Your task to perform on an android device: turn off notifications settings in the gmail app Image 0: 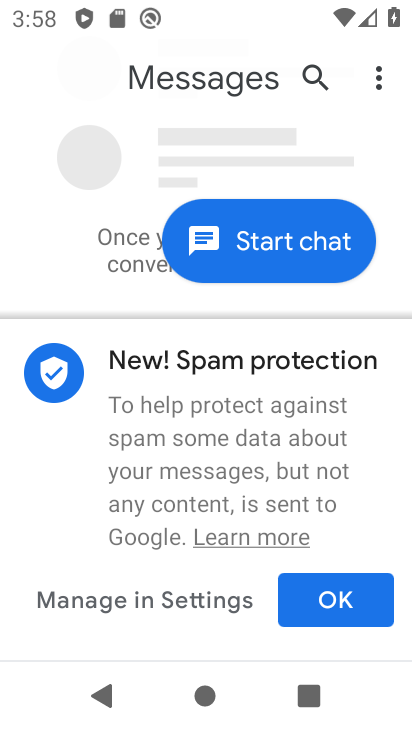
Step 0: press home button
Your task to perform on an android device: turn off notifications settings in the gmail app Image 1: 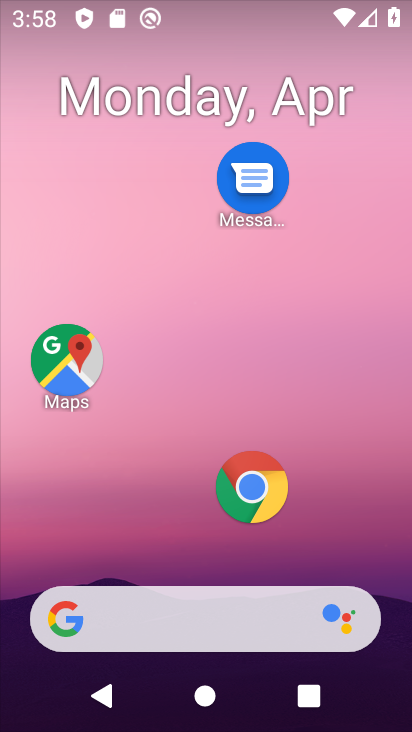
Step 1: drag from (133, 542) to (203, 54)
Your task to perform on an android device: turn off notifications settings in the gmail app Image 2: 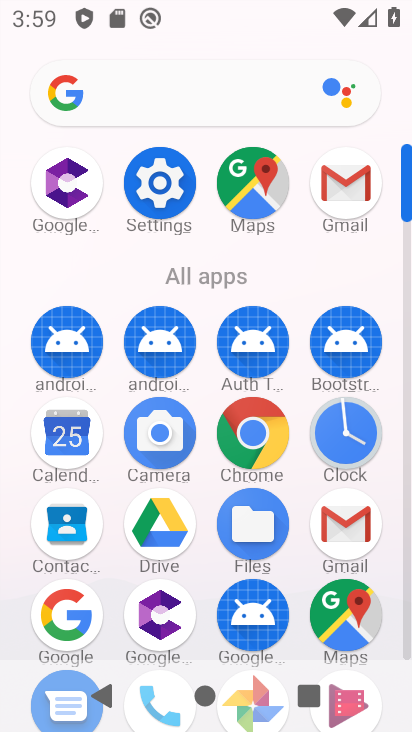
Step 2: click (353, 528)
Your task to perform on an android device: turn off notifications settings in the gmail app Image 3: 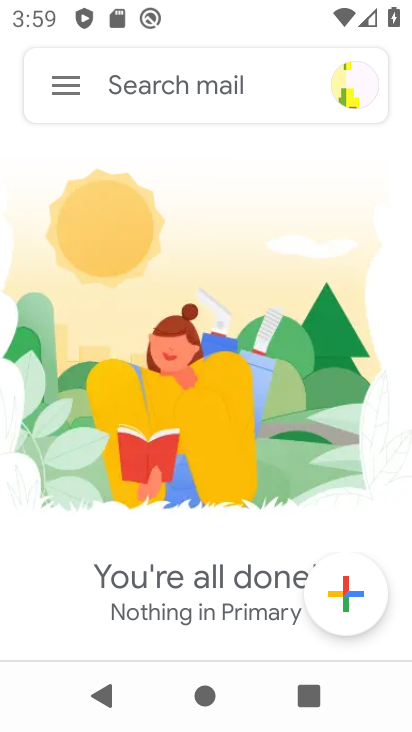
Step 3: click (71, 93)
Your task to perform on an android device: turn off notifications settings in the gmail app Image 4: 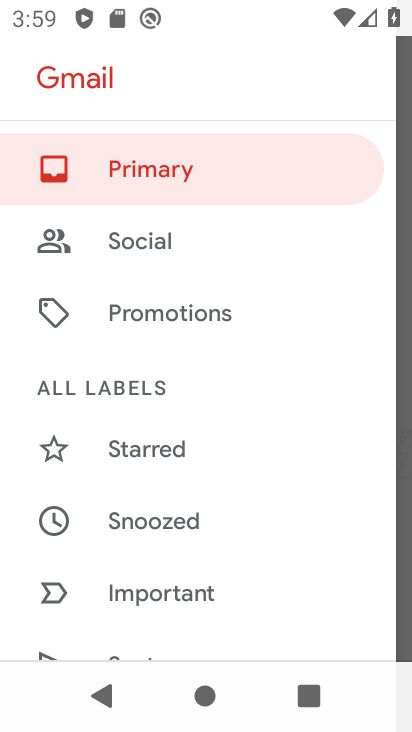
Step 4: drag from (176, 538) to (277, 82)
Your task to perform on an android device: turn off notifications settings in the gmail app Image 5: 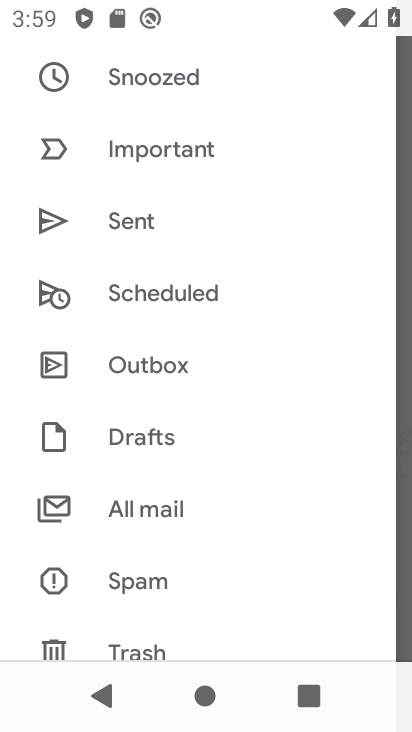
Step 5: drag from (149, 559) to (252, 145)
Your task to perform on an android device: turn off notifications settings in the gmail app Image 6: 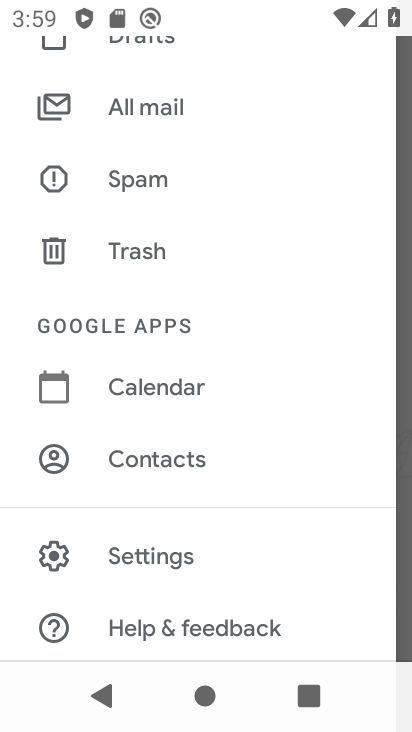
Step 6: click (158, 554)
Your task to perform on an android device: turn off notifications settings in the gmail app Image 7: 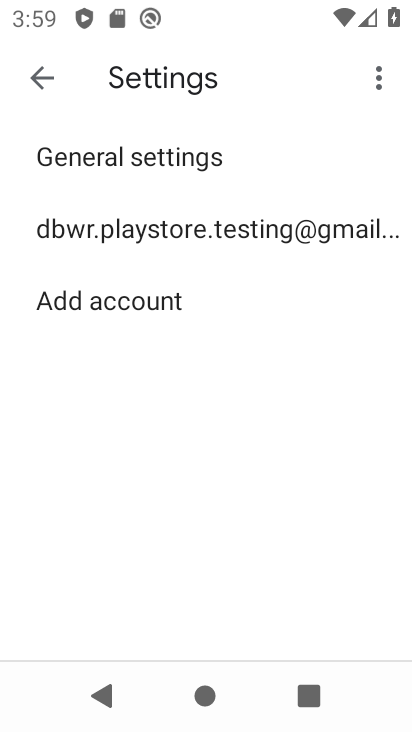
Step 7: click (150, 147)
Your task to perform on an android device: turn off notifications settings in the gmail app Image 8: 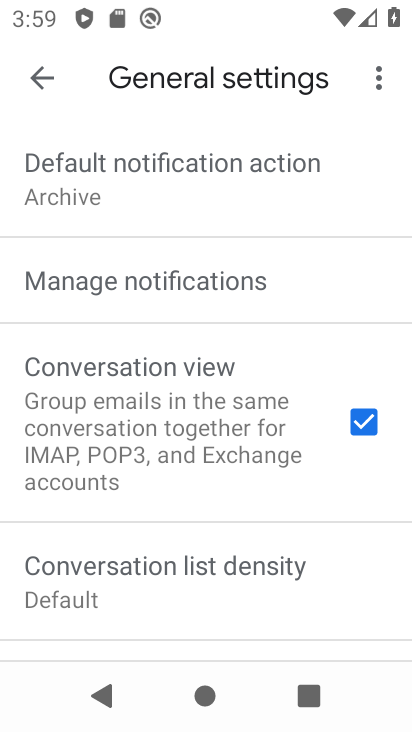
Step 8: click (142, 276)
Your task to perform on an android device: turn off notifications settings in the gmail app Image 9: 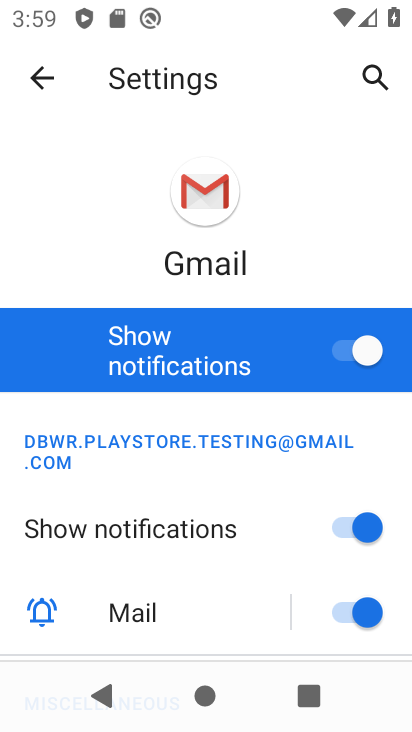
Step 9: click (326, 357)
Your task to perform on an android device: turn off notifications settings in the gmail app Image 10: 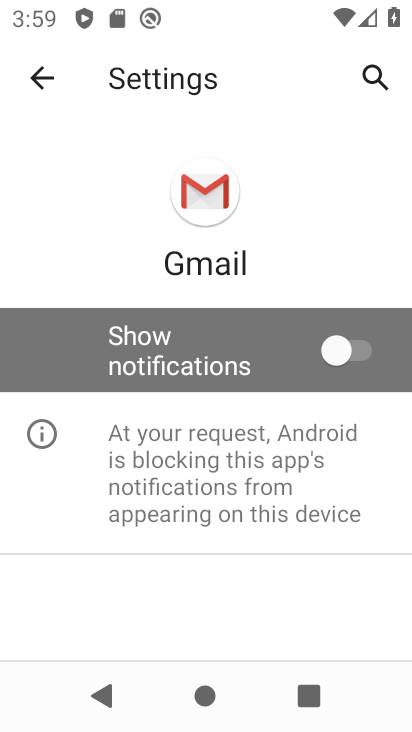
Step 10: task complete